Your task to perform on an android device: turn off notifications in google photos Image 0: 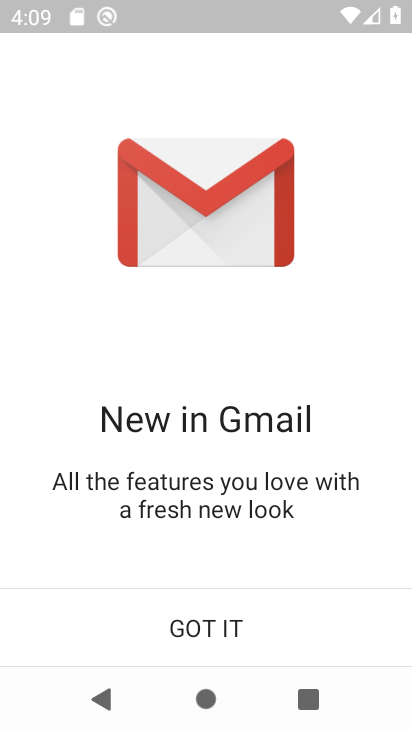
Step 0: press home button
Your task to perform on an android device: turn off notifications in google photos Image 1: 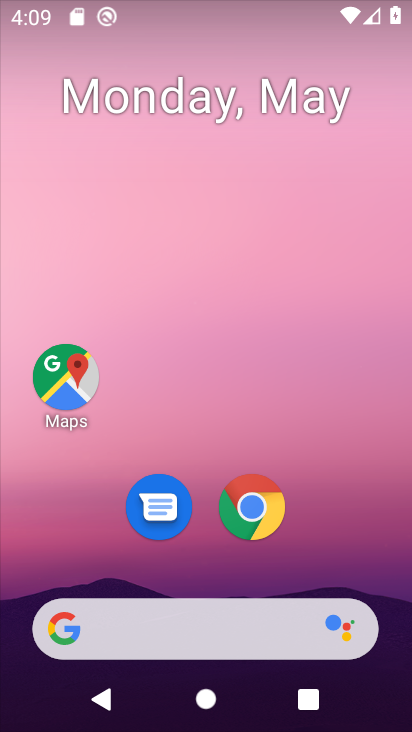
Step 1: drag from (253, 545) to (335, 126)
Your task to perform on an android device: turn off notifications in google photos Image 2: 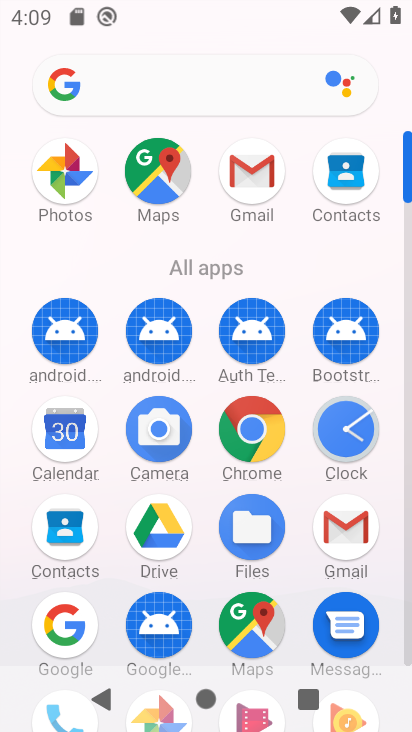
Step 2: click (94, 184)
Your task to perform on an android device: turn off notifications in google photos Image 3: 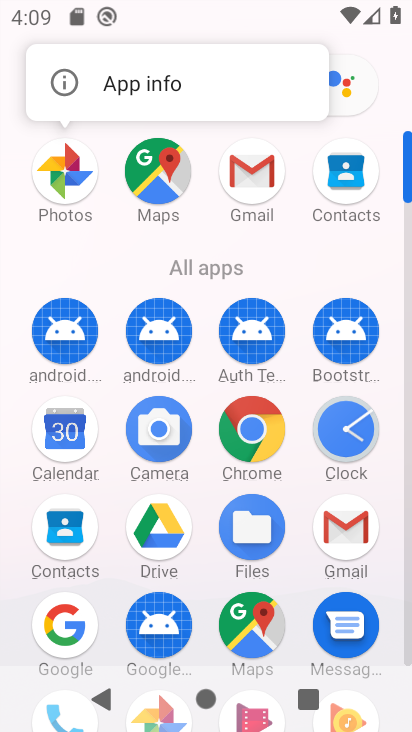
Step 3: click (154, 89)
Your task to perform on an android device: turn off notifications in google photos Image 4: 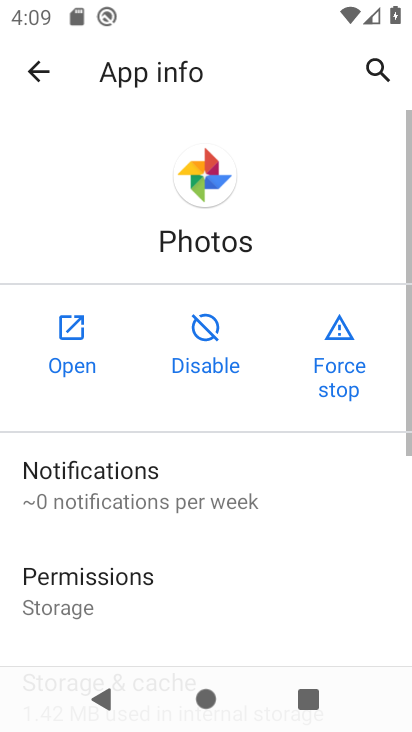
Step 4: click (149, 459)
Your task to perform on an android device: turn off notifications in google photos Image 5: 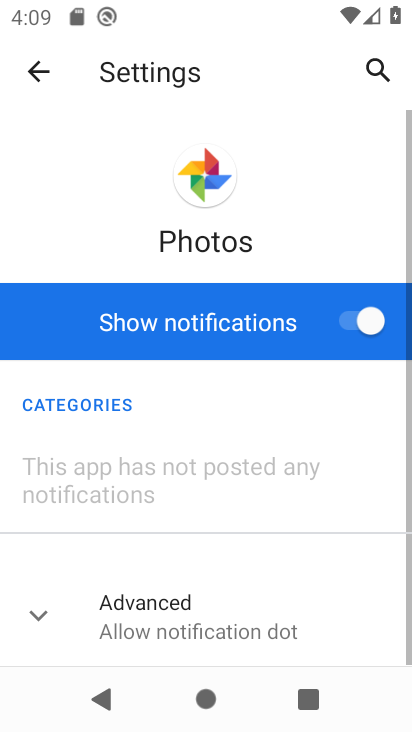
Step 5: click (288, 314)
Your task to perform on an android device: turn off notifications in google photos Image 6: 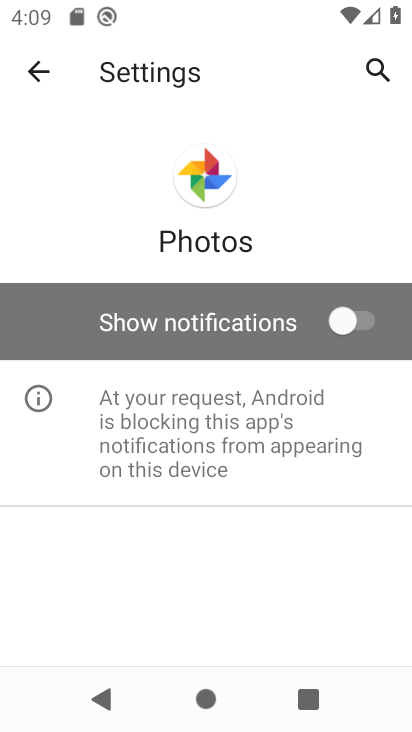
Step 6: task complete